Your task to perform on an android device: Go to sound settings Image 0: 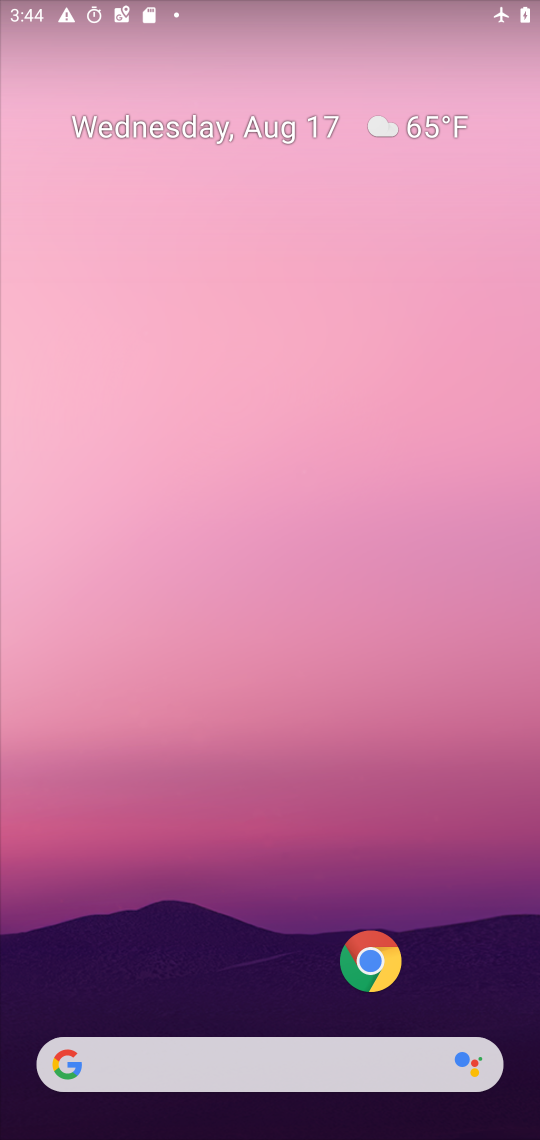
Step 0: drag from (339, 846) to (343, 62)
Your task to perform on an android device: Go to sound settings Image 1: 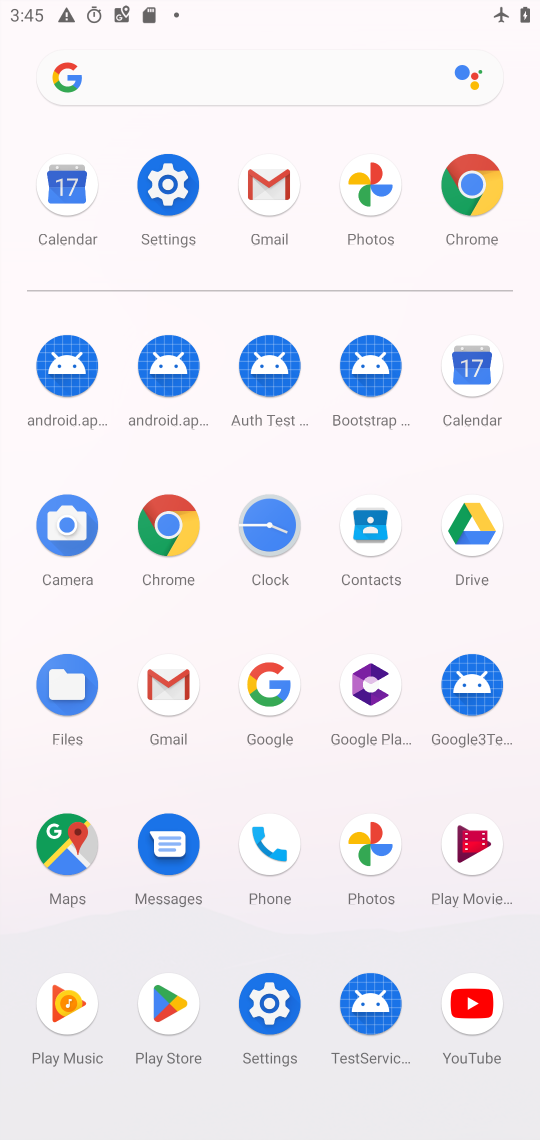
Step 1: drag from (293, 793) to (446, 297)
Your task to perform on an android device: Go to sound settings Image 2: 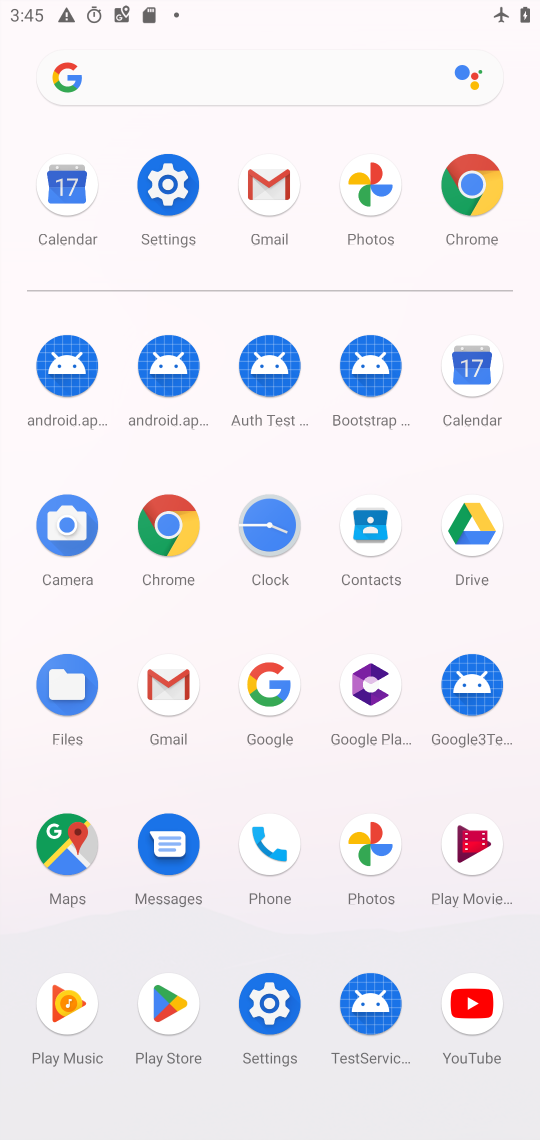
Step 2: click (292, 1004)
Your task to perform on an android device: Go to sound settings Image 3: 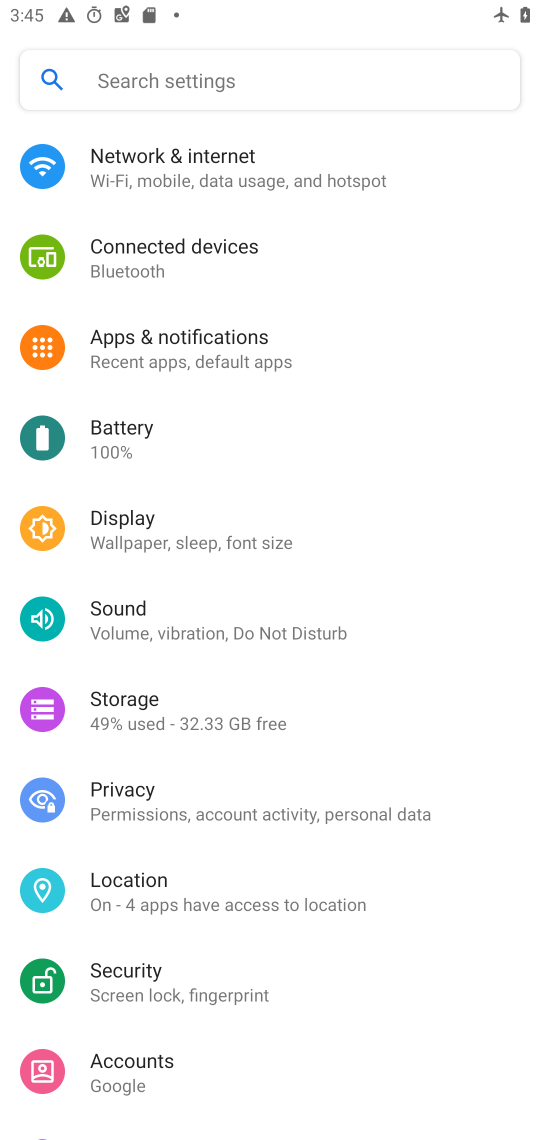
Step 3: click (188, 614)
Your task to perform on an android device: Go to sound settings Image 4: 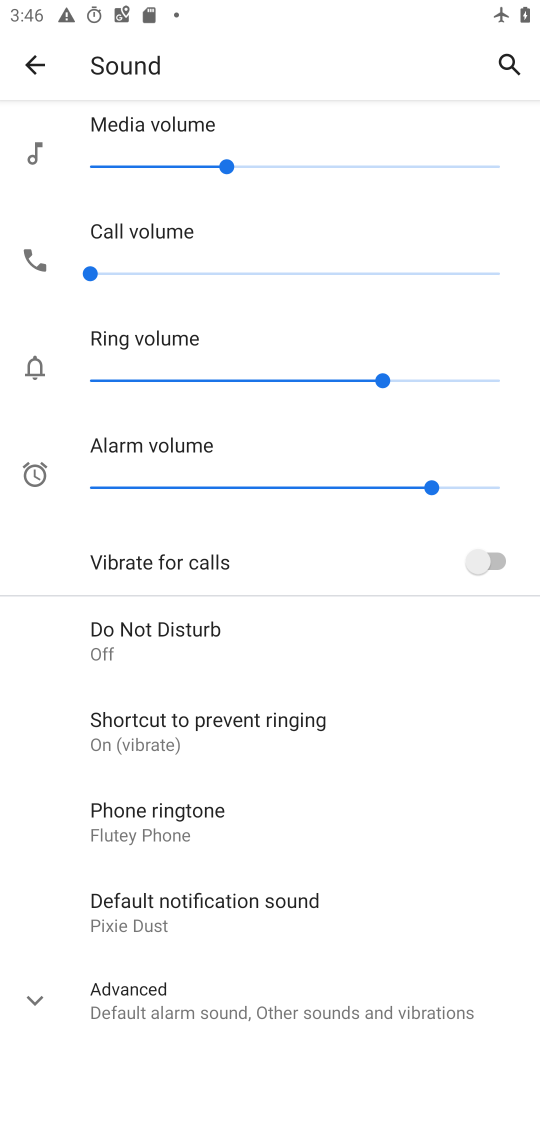
Step 4: task complete